Your task to perform on an android device: turn off data saver in the chrome app Image 0: 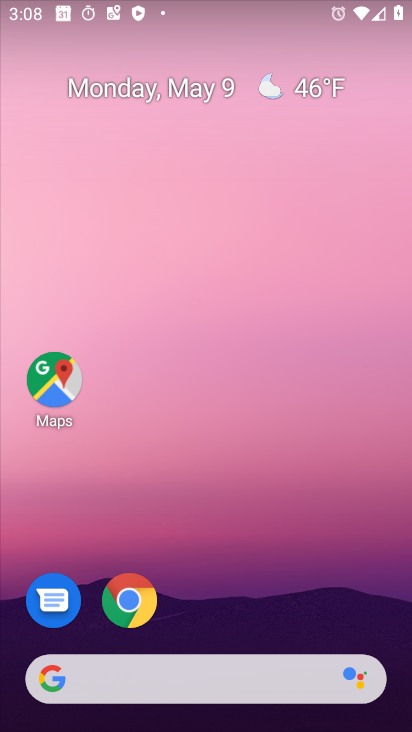
Step 0: click (140, 595)
Your task to perform on an android device: turn off data saver in the chrome app Image 1: 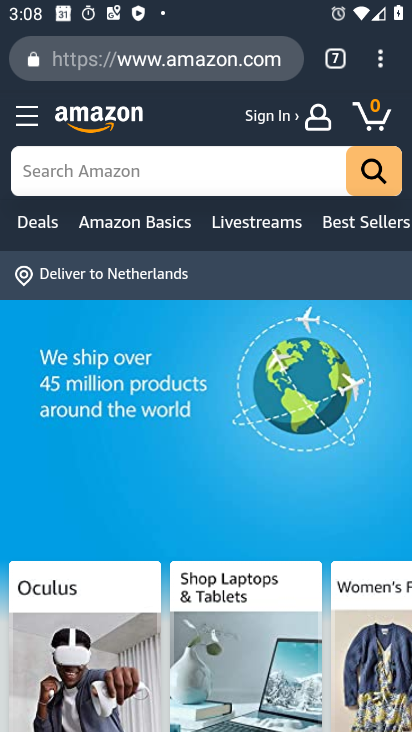
Step 1: drag from (378, 58) to (160, 623)
Your task to perform on an android device: turn off data saver in the chrome app Image 2: 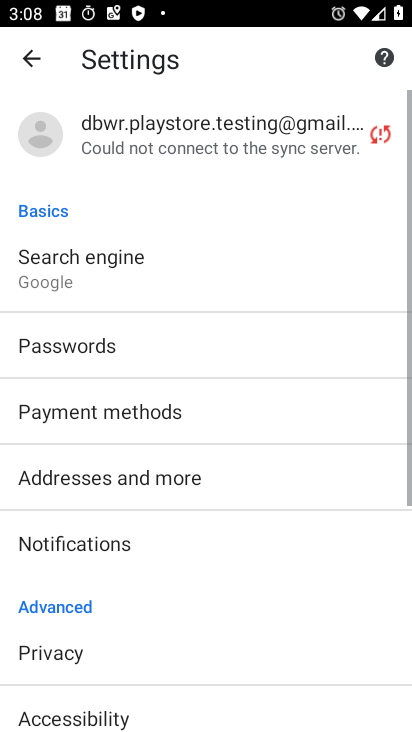
Step 2: drag from (162, 637) to (284, 85)
Your task to perform on an android device: turn off data saver in the chrome app Image 3: 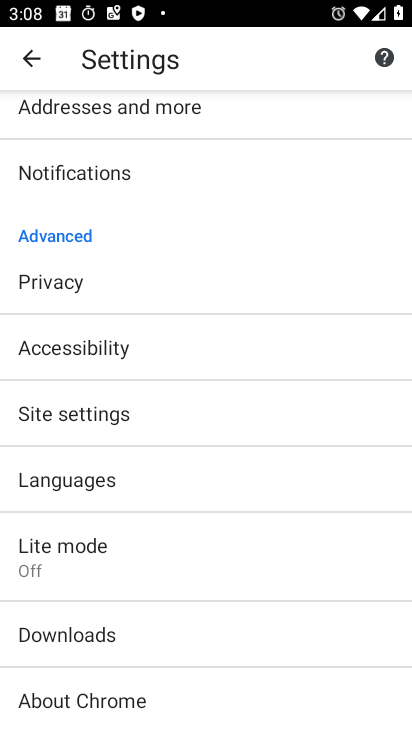
Step 3: click (45, 550)
Your task to perform on an android device: turn off data saver in the chrome app Image 4: 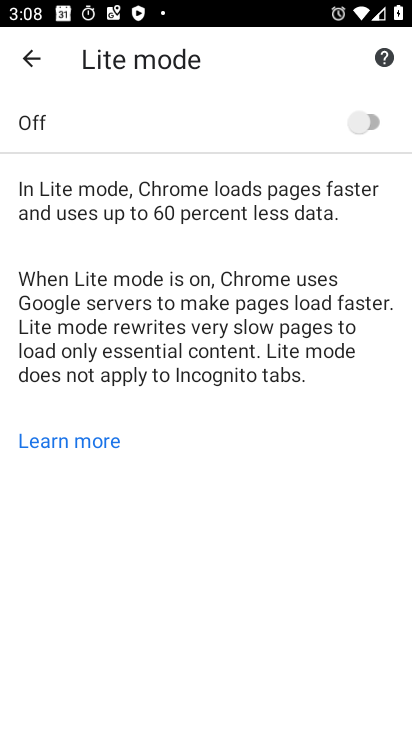
Step 4: task complete